Your task to perform on an android device: Open the calendar and show me this week's events? Image 0: 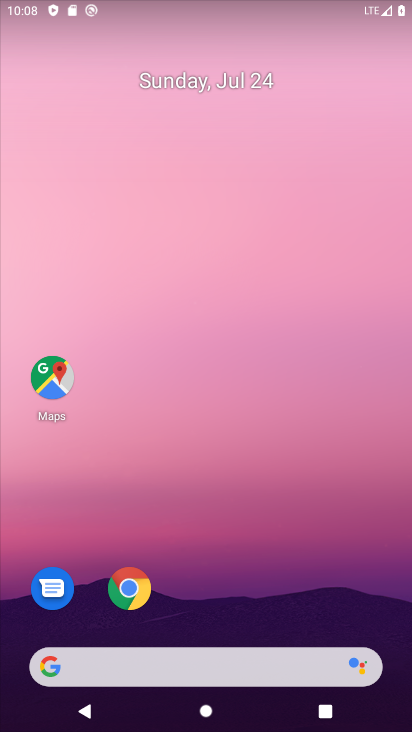
Step 0: click (307, 0)
Your task to perform on an android device: Open the calendar and show me this week's events? Image 1: 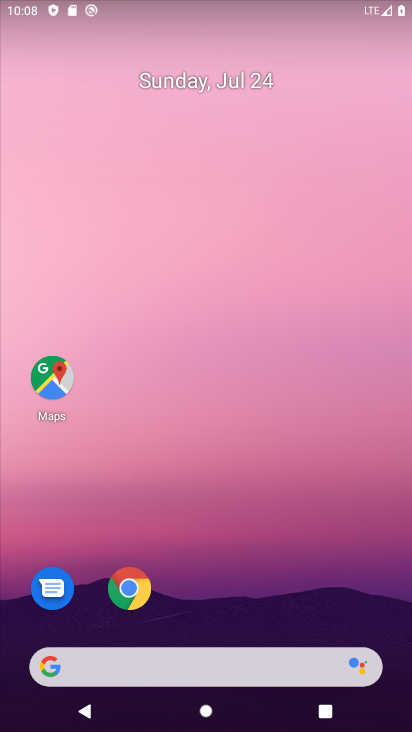
Step 1: drag from (251, 642) to (353, 56)
Your task to perform on an android device: Open the calendar and show me this week's events? Image 2: 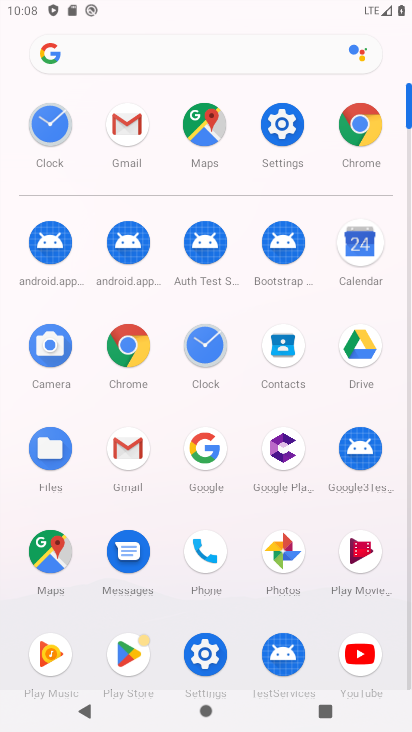
Step 2: click (365, 264)
Your task to perform on an android device: Open the calendar and show me this week's events? Image 3: 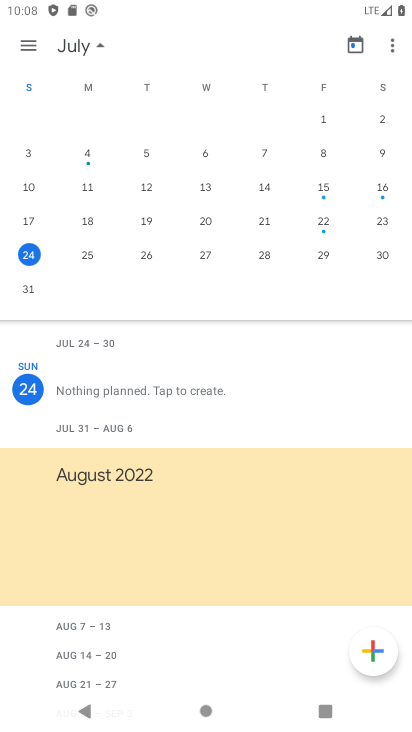
Step 3: task complete